Your task to perform on an android device: Open the phone app and click the voicemail tab. Image 0: 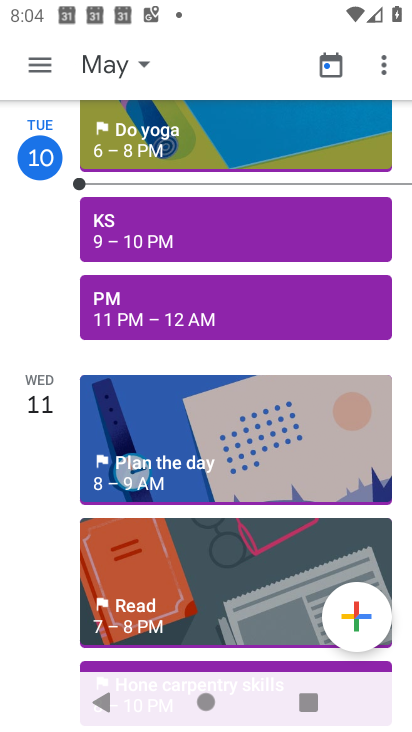
Step 0: press home button
Your task to perform on an android device: Open the phone app and click the voicemail tab. Image 1: 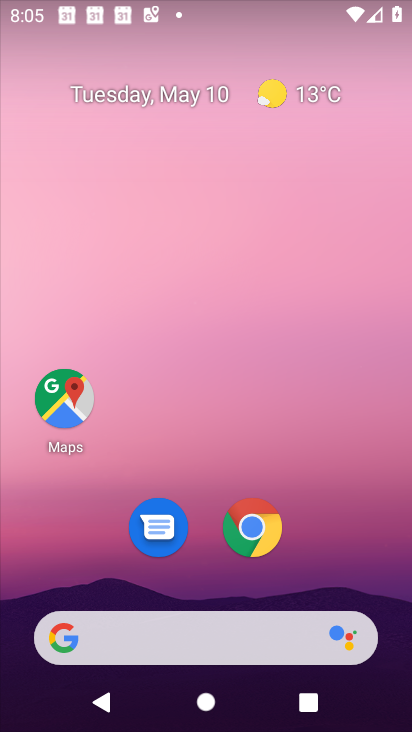
Step 1: drag from (77, 461) to (281, 101)
Your task to perform on an android device: Open the phone app and click the voicemail tab. Image 2: 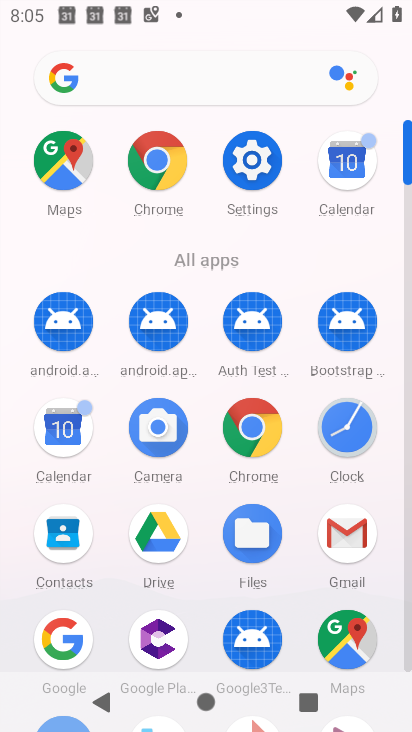
Step 2: drag from (173, 652) to (318, 199)
Your task to perform on an android device: Open the phone app and click the voicemail tab. Image 3: 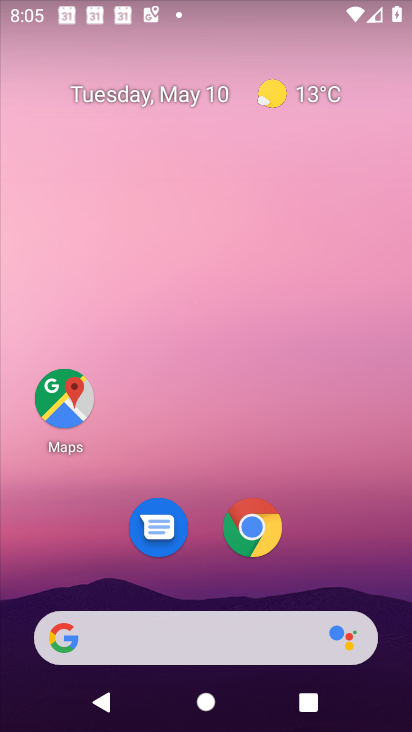
Step 3: drag from (18, 624) to (192, 209)
Your task to perform on an android device: Open the phone app and click the voicemail tab. Image 4: 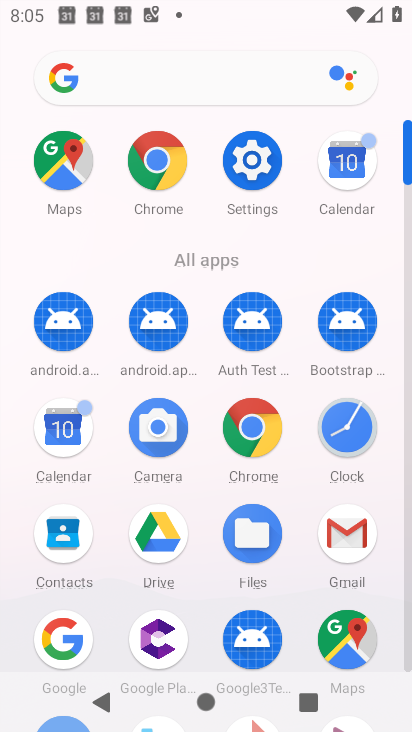
Step 4: drag from (35, 584) to (212, 140)
Your task to perform on an android device: Open the phone app and click the voicemail tab. Image 5: 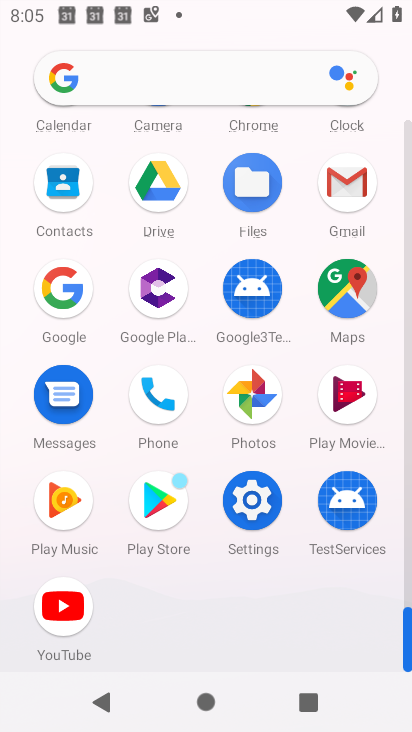
Step 5: click (161, 397)
Your task to perform on an android device: Open the phone app and click the voicemail tab. Image 6: 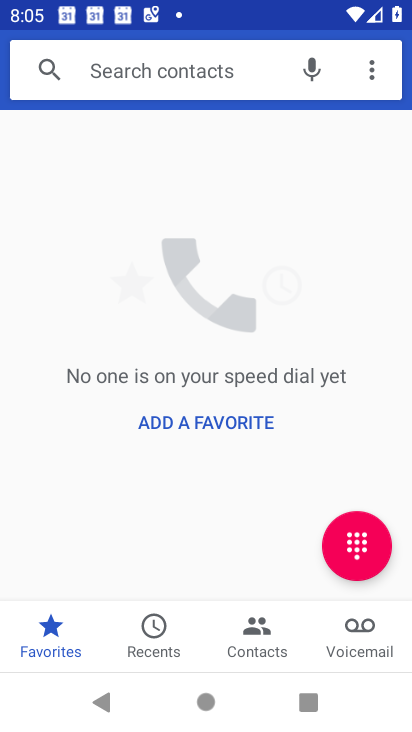
Step 6: click (356, 627)
Your task to perform on an android device: Open the phone app and click the voicemail tab. Image 7: 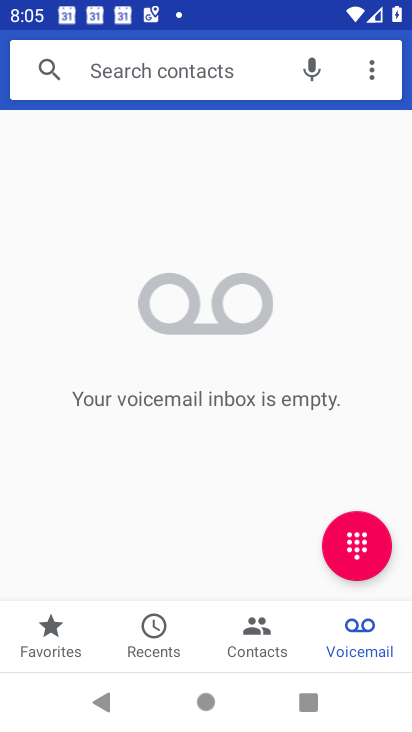
Step 7: task complete